Your task to perform on an android device: empty trash in the gmail app Image 0: 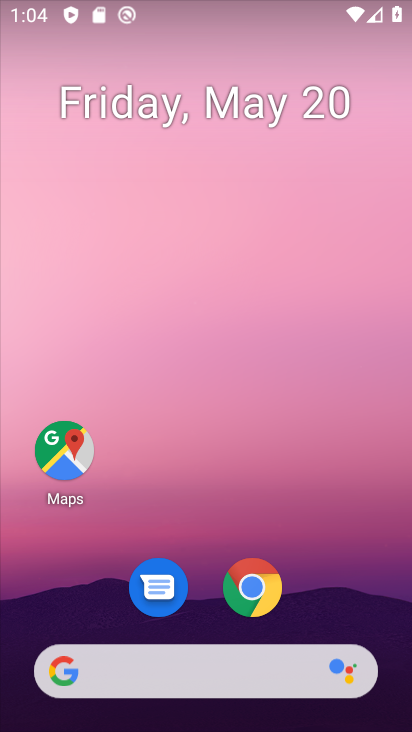
Step 0: drag from (328, 556) to (307, 143)
Your task to perform on an android device: empty trash in the gmail app Image 1: 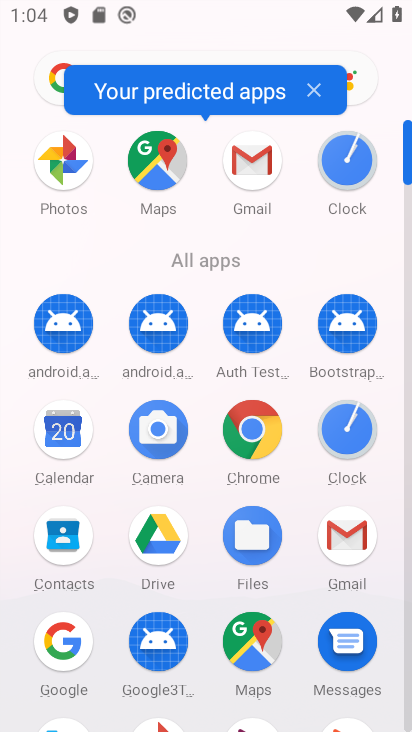
Step 1: click (265, 161)
Your task to perform on an android device: empty trash in the gmail app Image 2: 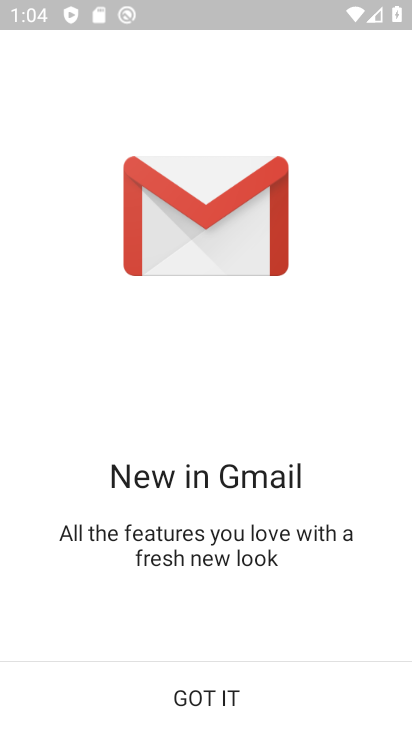
Step 2: click (225, 680)
Your task to perform on an android device: empty trash in the gmail app Image 3: 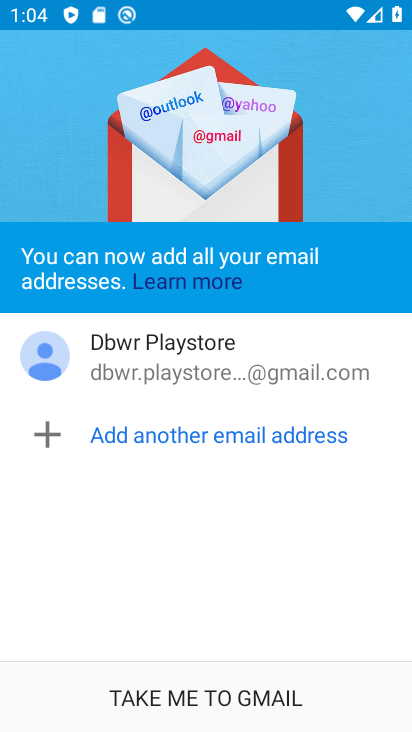
Step 3: click (225, 679)
Your task to perform on an android device: empty trash in the gmail app Image 4: 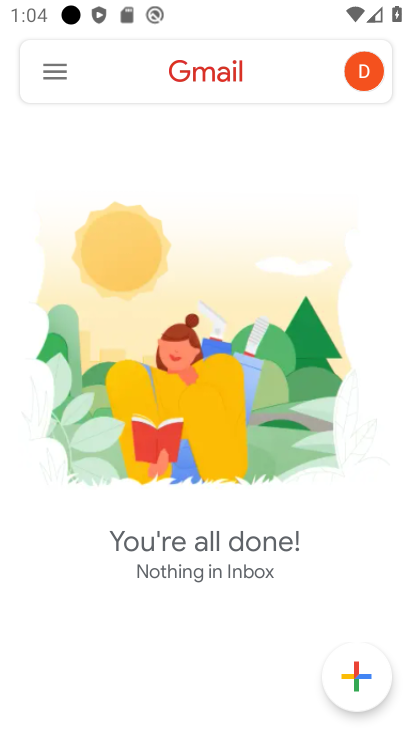
Step 4: click (59, 80)
Your task to perform on an android device: empty trash in the gmail app Image 5: 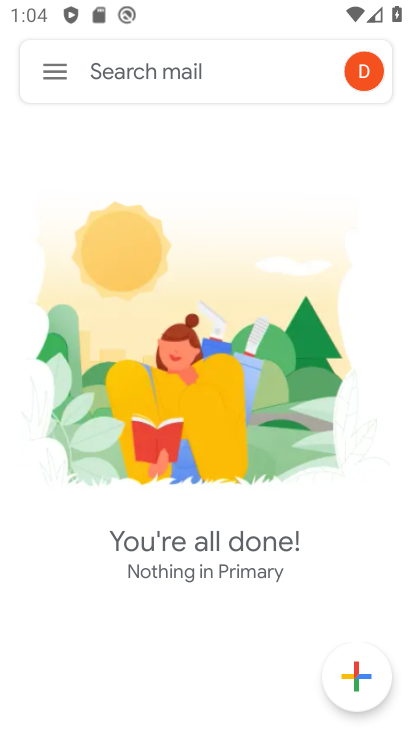
Step 5: click (55, 67)
Your task to perform on an android device: empty trash in the gmail app Image 6: 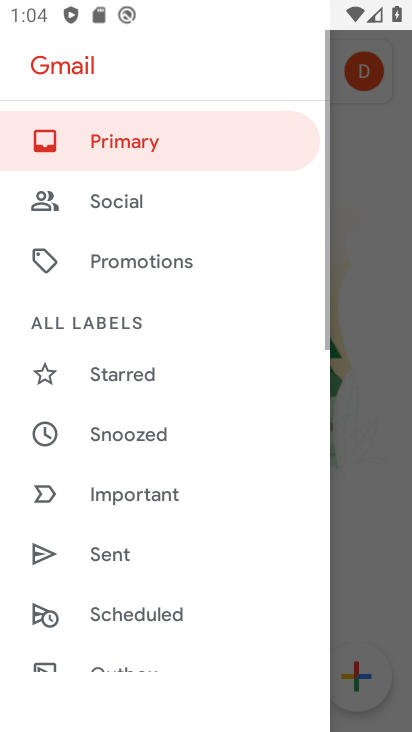
Step 6: drag from (118, 586) to (181, 198)
Your task to perform on an android device: empty trash in the gmail app Image 7: 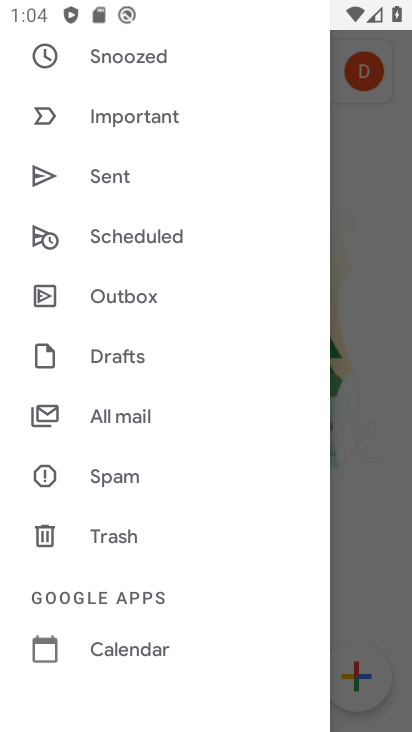
Step 7: click (122, 526)
Your task to perform on an android device: empty trash in the gmail app Image 8: 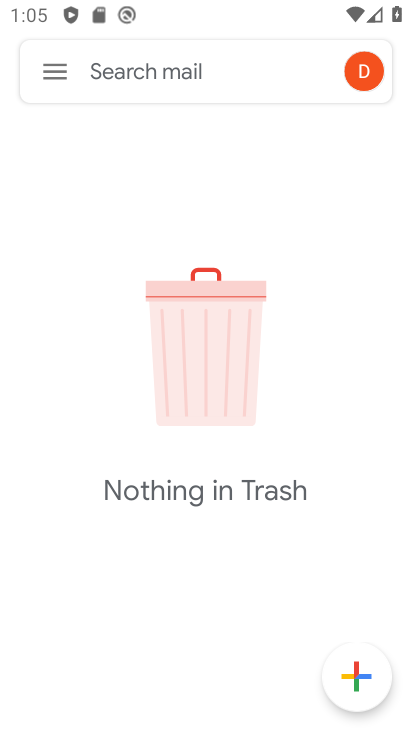
Step 8: task complete